Your task to perform on an android device: Open the stopwatch Image 0: 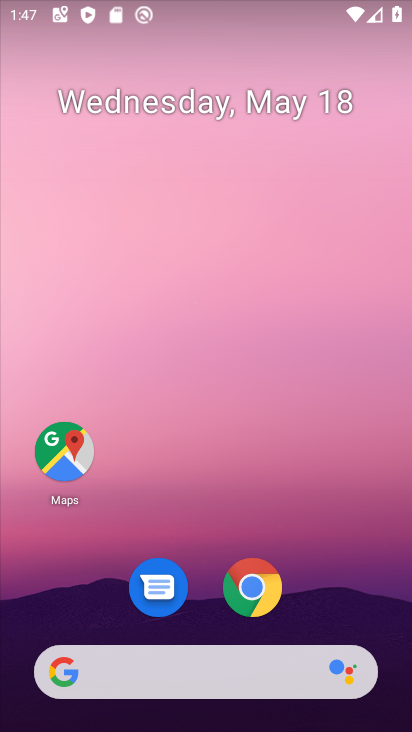
Step 0: drag from (359, 611) to (379, 9)
Your task to perform on an android device: Open the stopwatch Image 1: 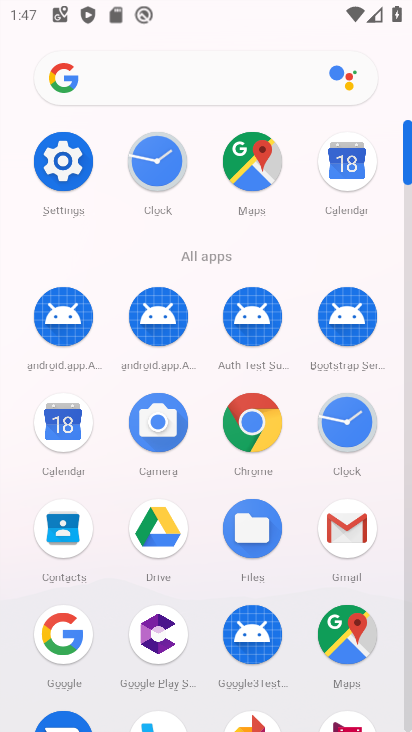
Step 1: click (165, 168)
Your task to perform on an android device: Open the stopwatch Image 2: 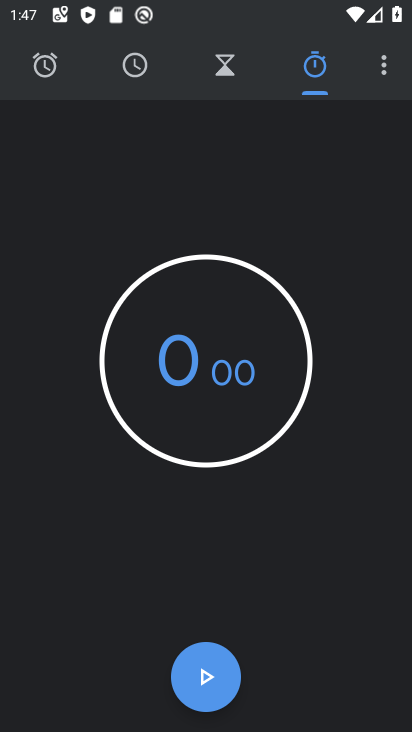
Step 2: task complete